Your task to perform on an android device: Search for "razer blade" on amazon, select the first entry, add it to the cart, then select checkout. Image 0: 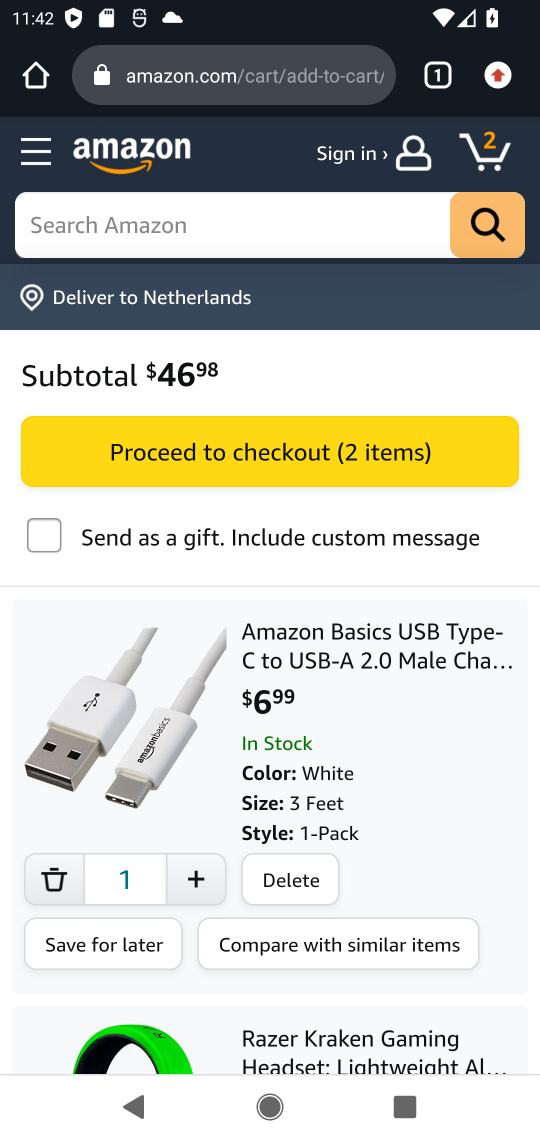
Step 0: click (168, 224)
Your task to perform on an android device: Search for "razer blade" on amazon, select the first entry, add it to the cart, then select checkout. Image 1: 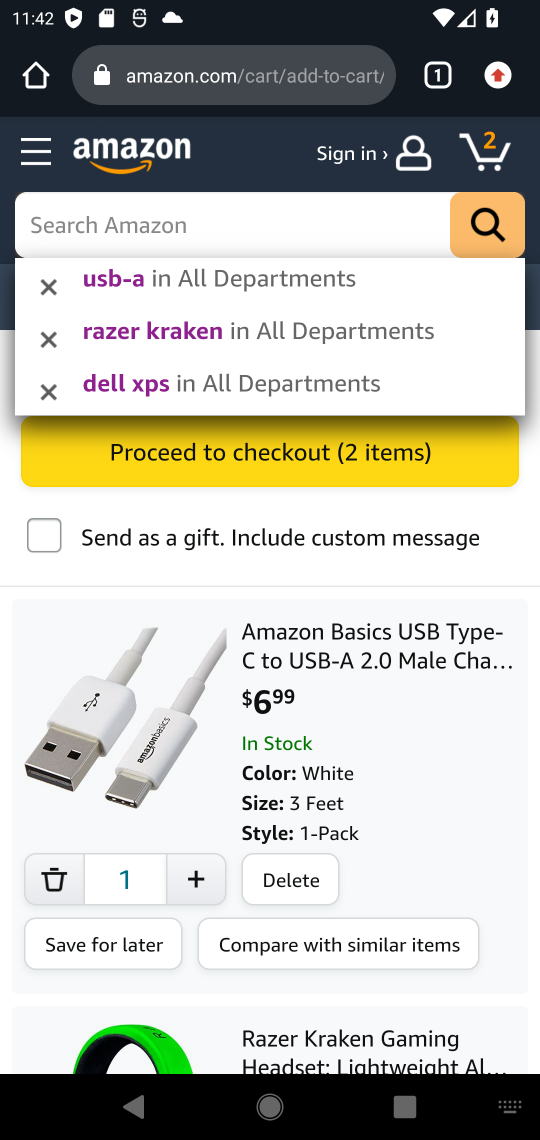
Step 1: type "razer blade"
Your task to perform on an android device: Search for "razer blade" on amazon, select the first entry, add it to the cart, then select checkout. Image 2: 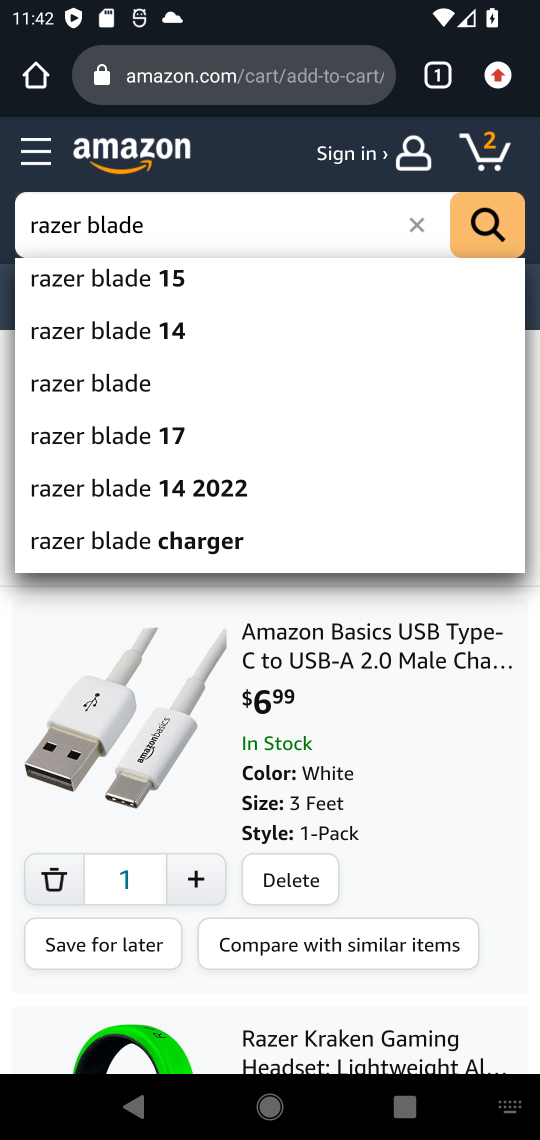
Step 2: click (114, 281)
Your task to perform on an android device: Search for "razer blade" on amazon, select the first entry, add it to the cart, then select checkout. Image 3: 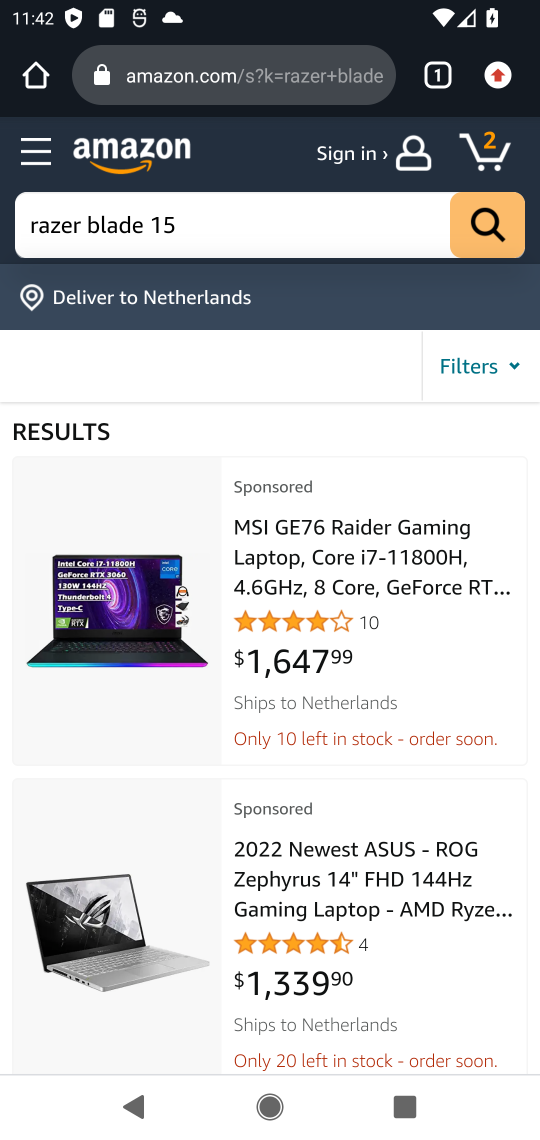
Step 3: click (484, 223)
Your task to perform on an android device: Search for "razer blade" on amazon, select the first entry, add it to the cart, then select checkout. Image 4: 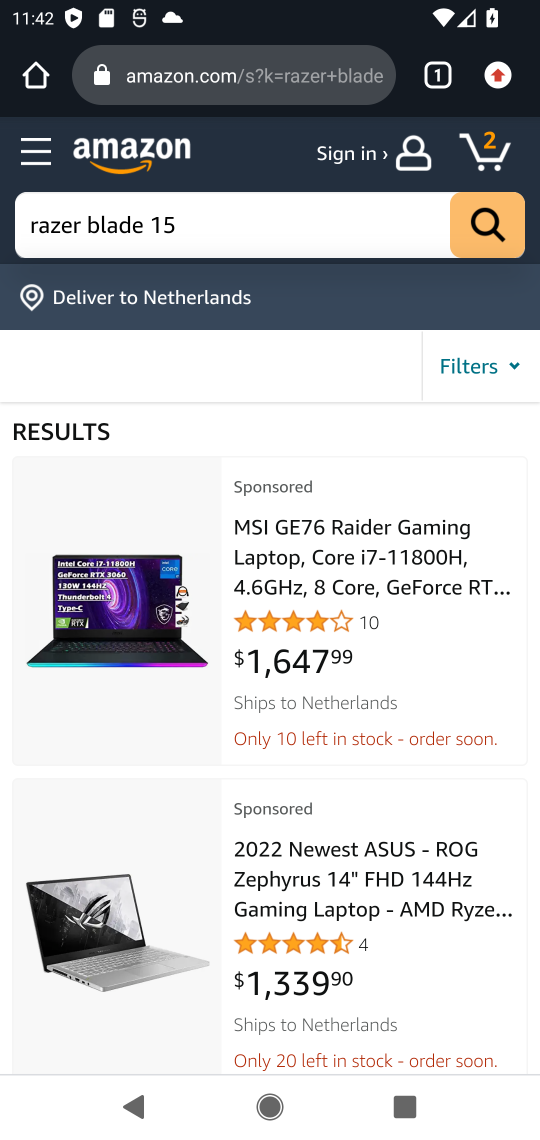
Step 4: task complete